Your task to perform on an android device: toggle notification dots Image 0: 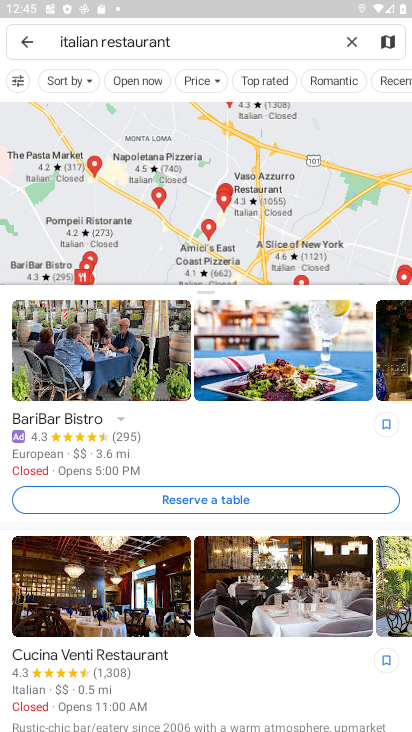
Step 0: press home button
Your task to perform on an android device: toggle notification dots Image 1: 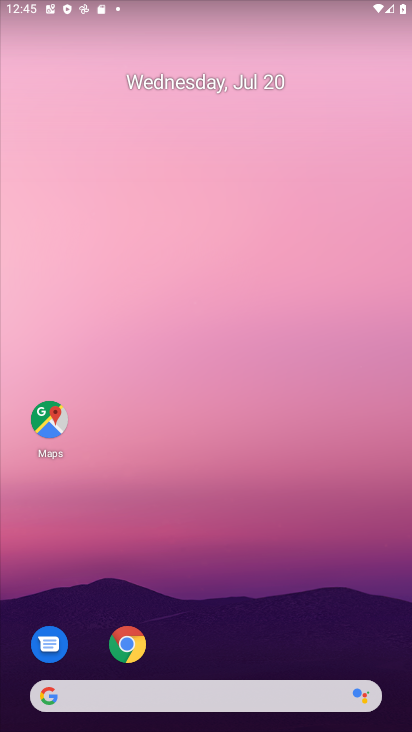
Step 1: drag from (286, 617) to (298, 39)
Your task to perform on an android device: toggle notification dots Image 2: 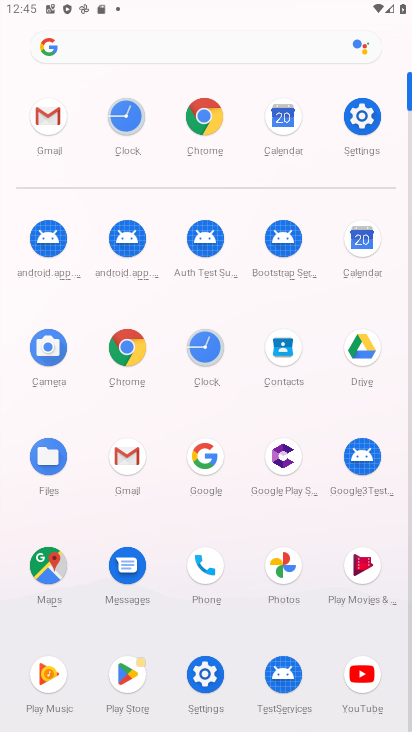
Step 2: click (203, 682)
Your task to perform on an android device: toggle notification dots Image 3: 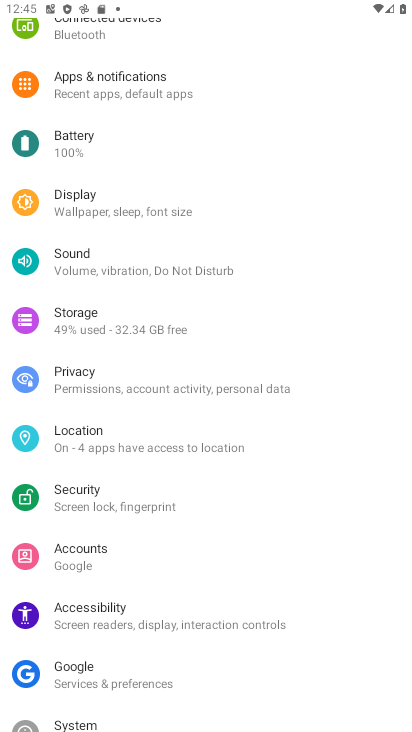
Step 3: click (104, 79)
Your task to perform on an android device: toggle notification dots Image 4: 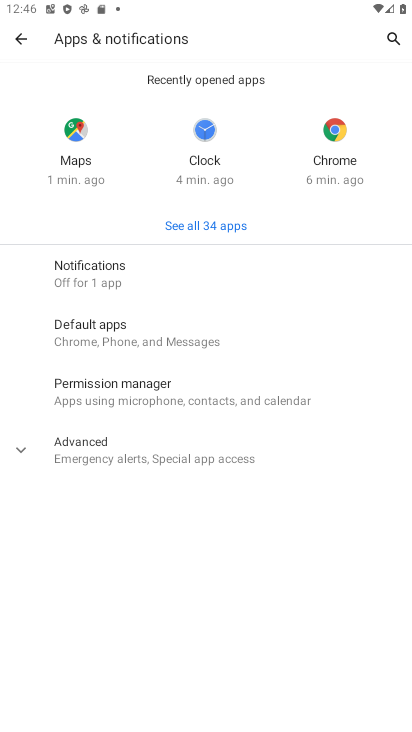
Step 4: click (108, 275)
Your task to perform on an android device: toggle notification dots Image 5: 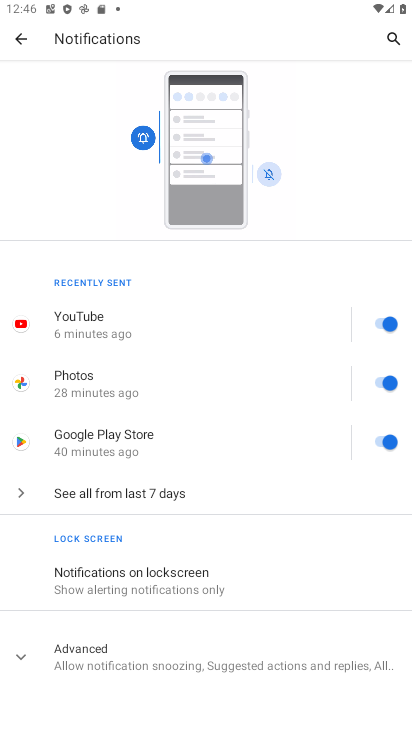
Step 5: click (140, 648)
Your task to perform on an android device: toggle notification dots Image 6: 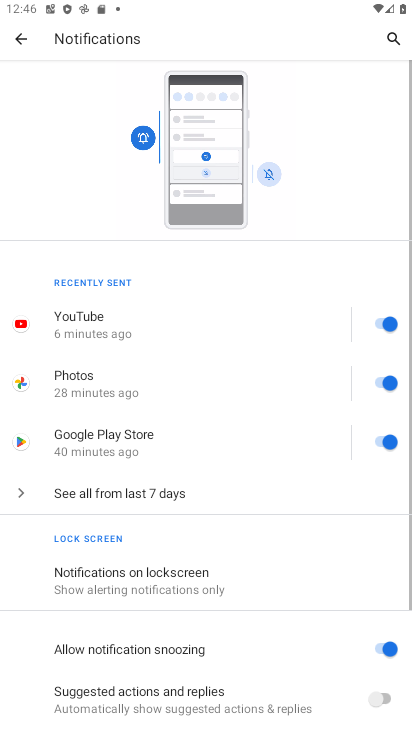
Step 6: drag from (72, 411) to (65, 259)
Your task to perform on an android device: toggle notification dots Image 7: 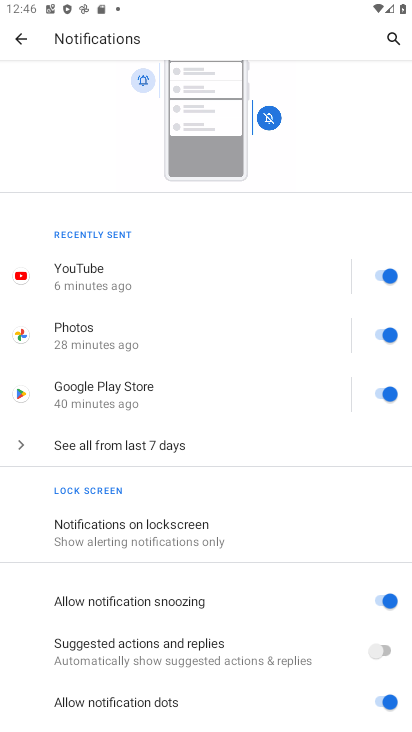
Step 7: drag from (216, 661) to (204, 321)
Your task to perform on an android device: toggle notification dots Image 8: 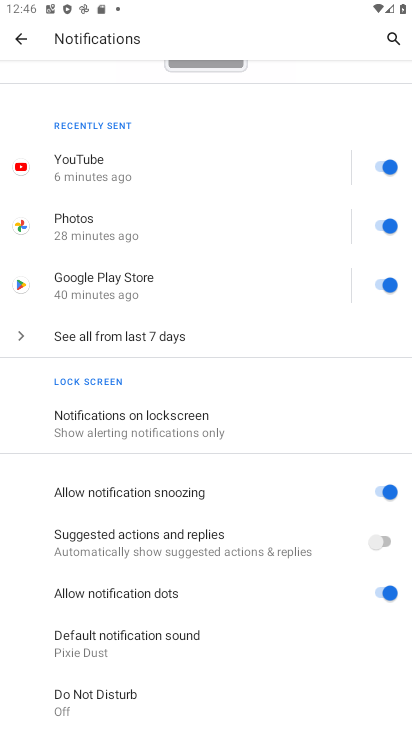
Step 8: click (189, 597)
Your task to perform on an android device: toggle notification dots Image 9: 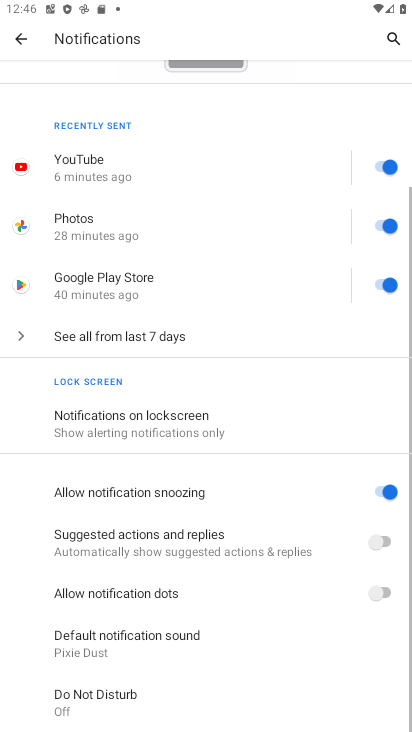
Step 9: task complete